Your task to perform on an android device: add a contact Image 0: 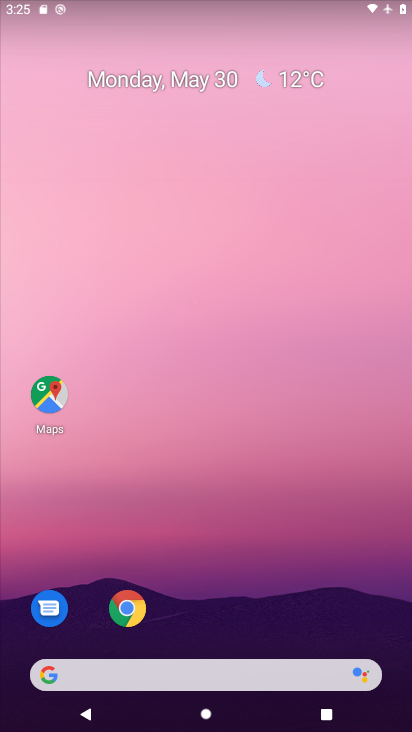
Step 0: drag from (266, 591) to (163, 50)
Your task to perform on an android device: add a contact Image 1: 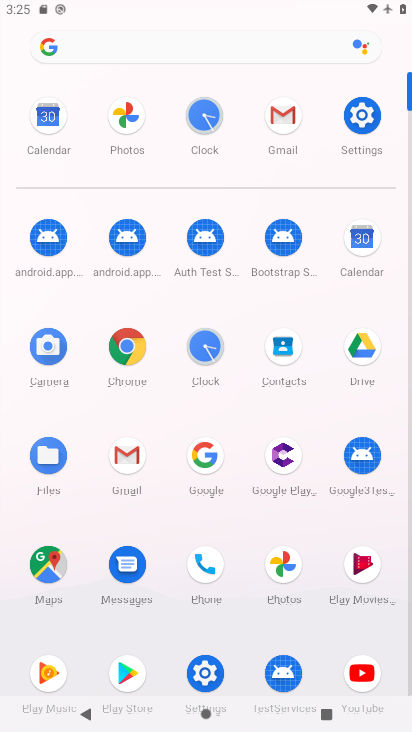
Step 1: click (281, 352)
Your task to perform on an android device: add a contact Image 2: 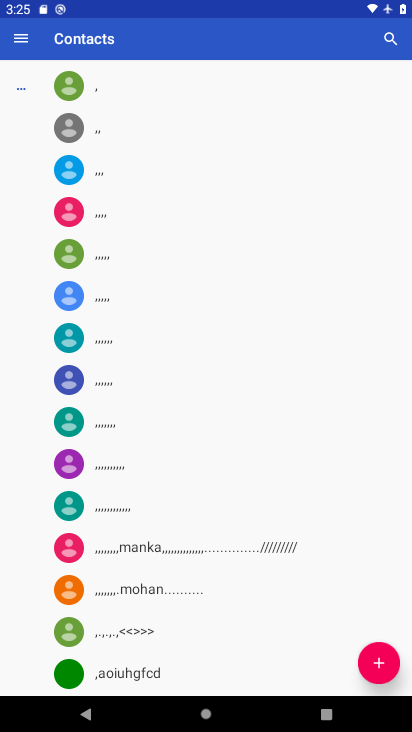
Step 2: click (382, 664)
Your task to perform on an android device: add a contact Image 3: 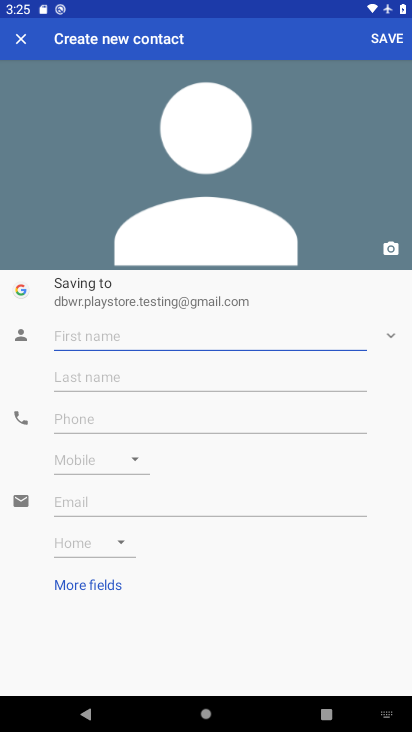
Step 3: type "gvhg"
Your task to perform on an android device: add a contact Image 4: 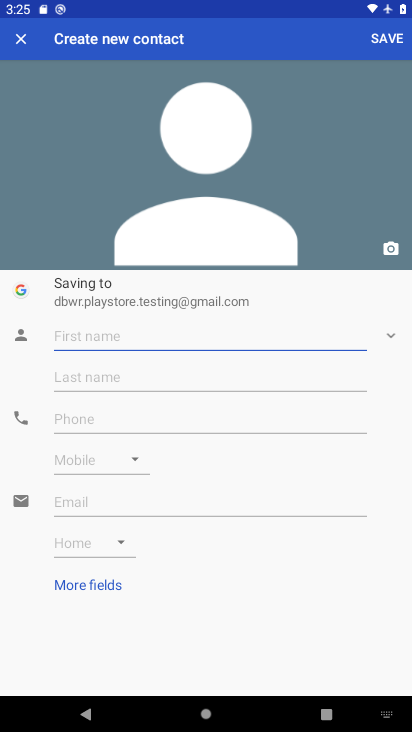
Step 4: click (292, 380)
Your task to perform on an android device: add a contact Image 5: 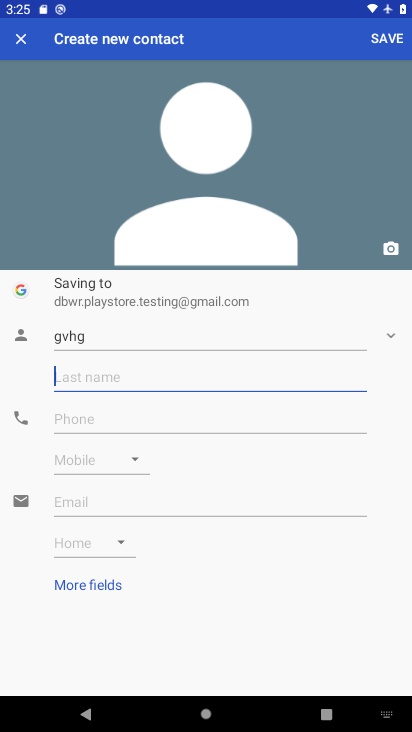
Step 5: type "hgvhgv"
Your task to perform on an android device: add a contact Image 6: 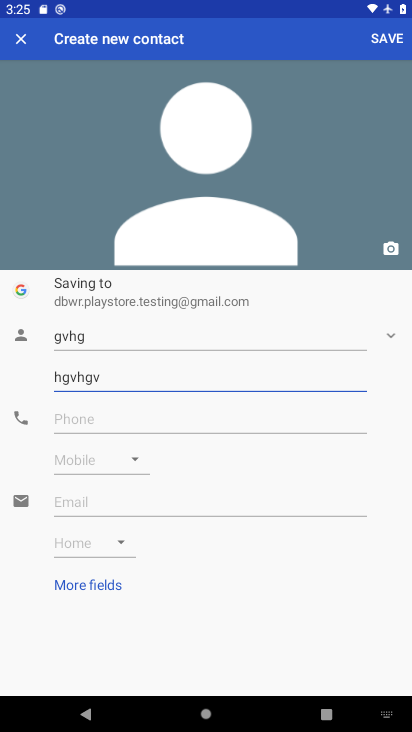
Step 6: click (293, 419)
Your task to perform on an android device: add a contact Image 7: 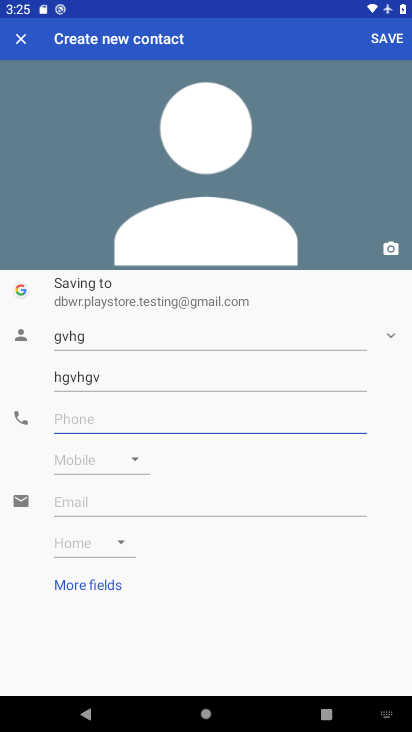
Step 7: type "76575567"
Your task to perform on an android device: add a contact Image 8: 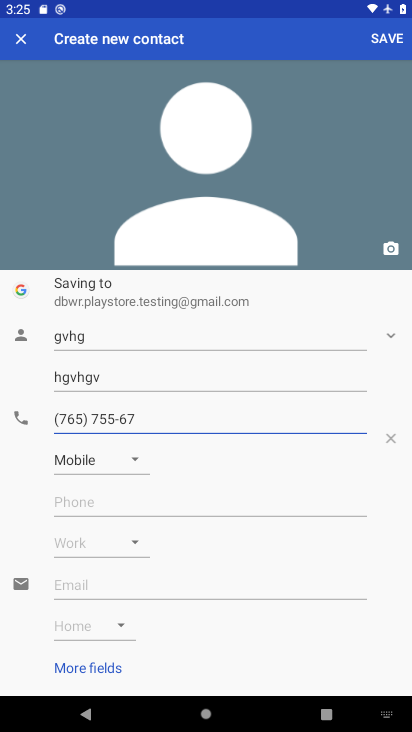
Step 8: click (384, 39)
Your task to perform on an android device: add a contact Image 9: 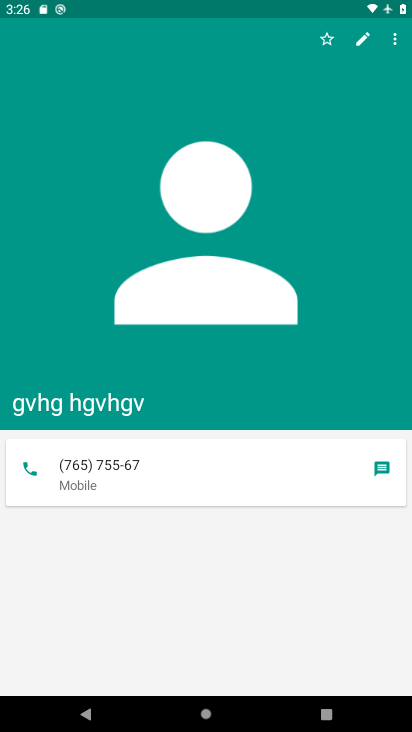
Step 9: task complete